Your task to perform on an android device: Open Youtube and go to the subscriptions tab Image 0: 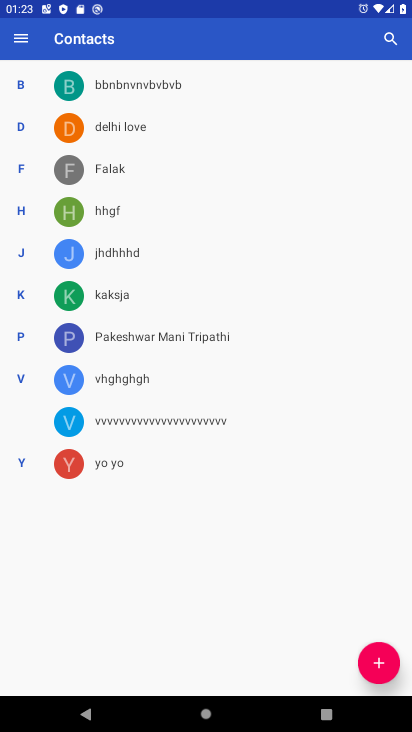
Step 0: press home button
Your task to perform on an android device: Open Youtube and go to the subscriptions tab Image 1: 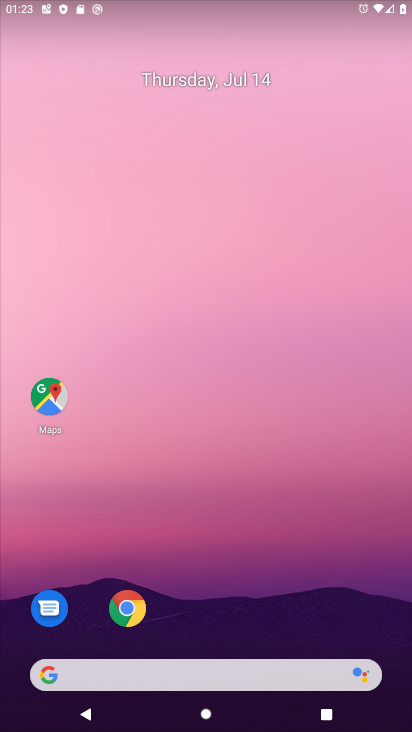
Step 1: drag from (255, 637) to (179, 105)
Your task to perform on an android device: Open Youtube and go to the subscriptions tab Image 2: 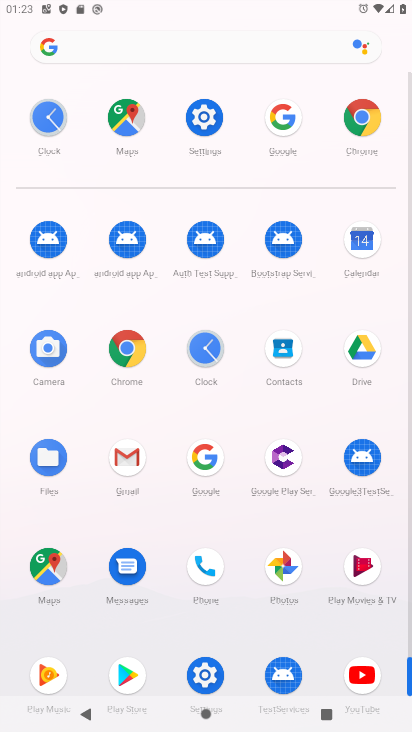
Step 2: click (338, 678)
Your task to perform on an android device: Open Youtube and go to the subscriptions tab Image 3: 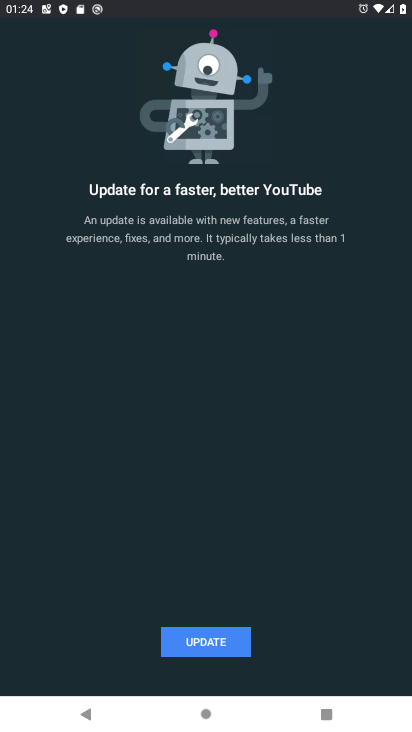
Step 3: click (210, 653)
Your task to perform on an android device: Open Youtube and go to the subscriptions tab Image 4: 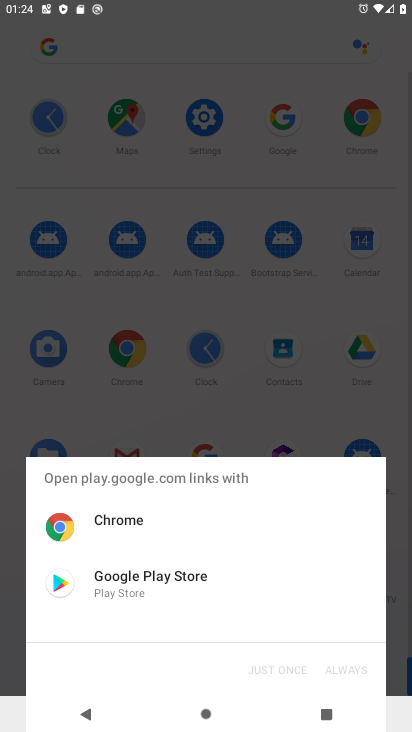
Step 4: click (190, 608)
Your task to perform on an android device: Open Youtube and go to the subscriptions tab Image 5: 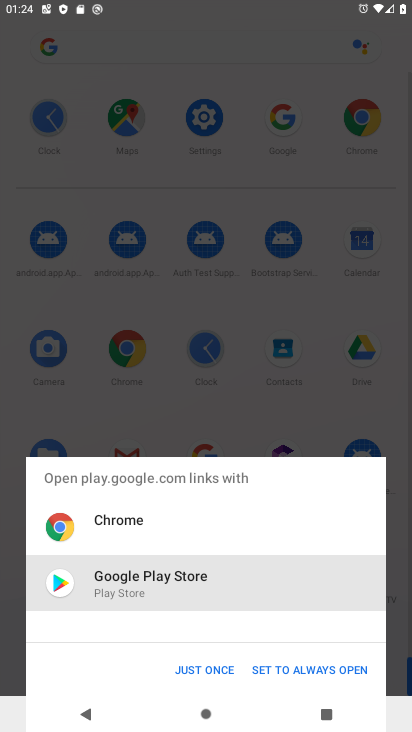
Step 5: click (202, 661)
Your task to perform on an android device: Open Youtube and go to the subscriptions tab Image 6: 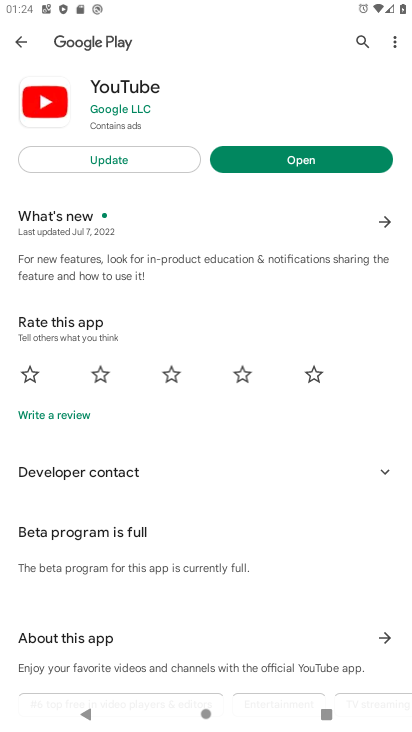
Step 6: click (93, 159)
Your task to perform on an android device: Open Youtube and go to the subscriptions tab Image 7: 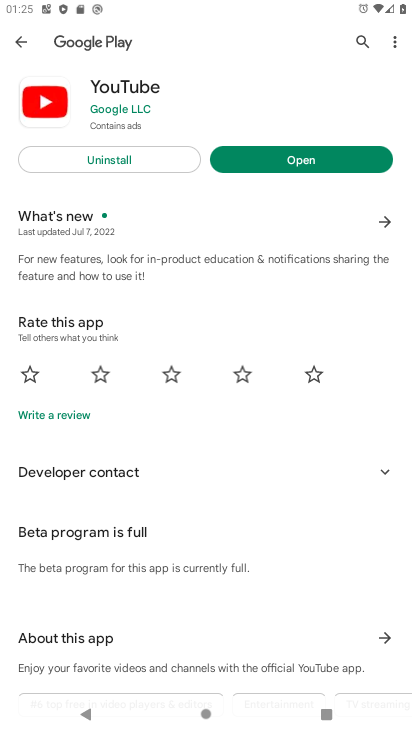
Step 7: click (364, 161)
Your task to perform on an android device: Open Youtube and go to the subscriptions tab Image 8: 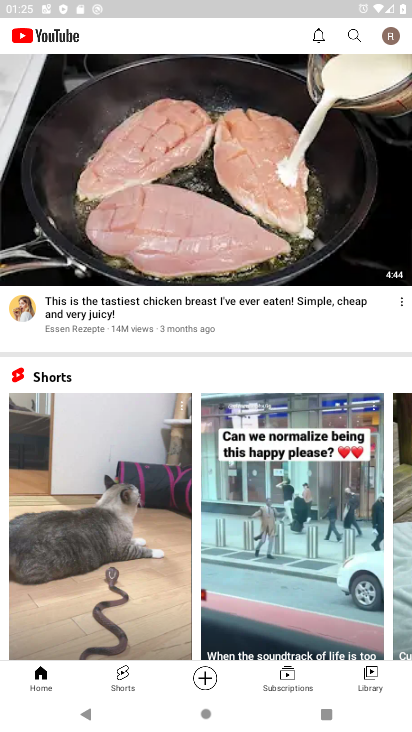
Step 8: click (267, 684)
Your task to perform on an android device: Open Youtube and go to the subscriptions tab Image 9: 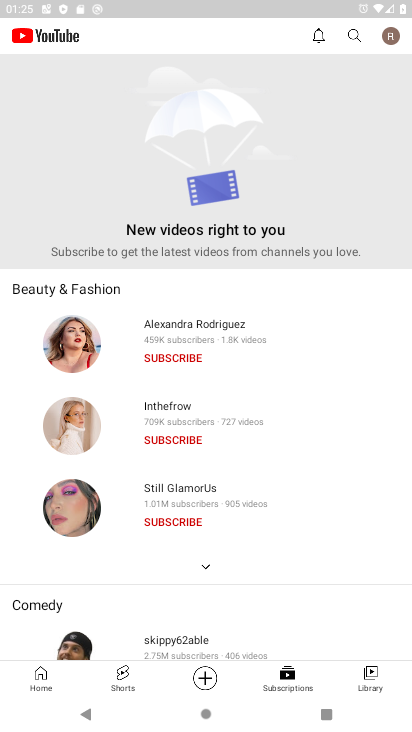
Step 9: task complete